Your task to perform on an android device: empty trash in google photos Image 0: 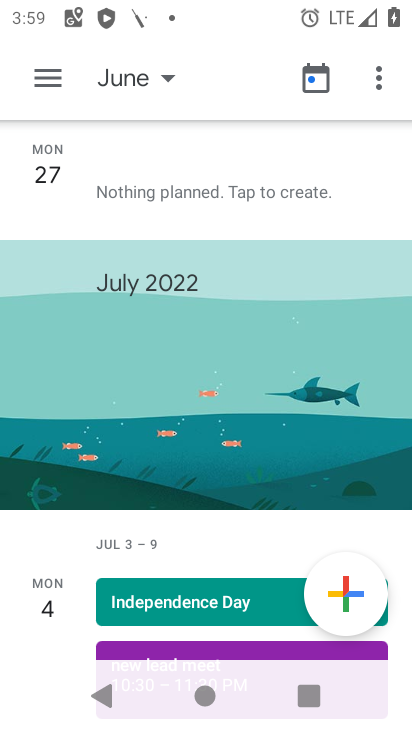
Step 0: press home button
Your task to perform on an android device: empty trash in google photos Image 1: 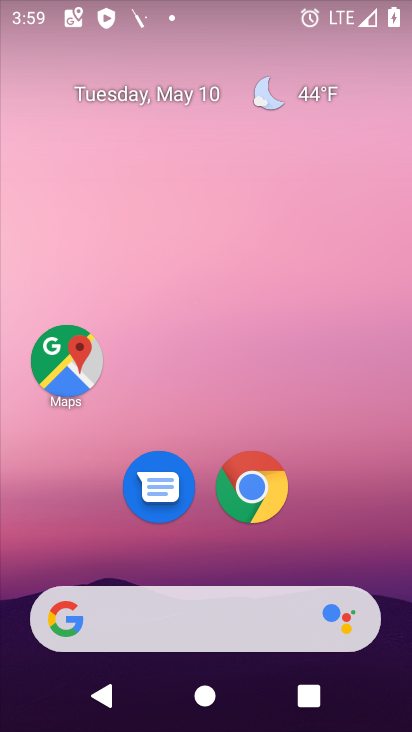
Step 1: drag from (350, 498) to (305, 98)
Your task to perform on an android device: empty trash in google photos Image 2: 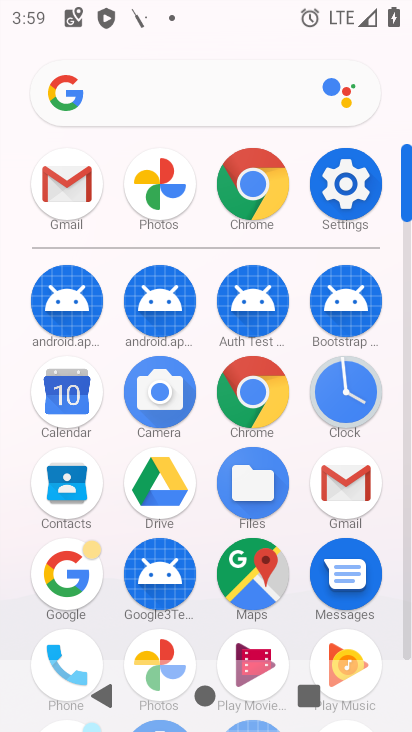
Step 2: click (164, 176)
Your task to perform on an android device: empty trash in google photos Image 3: 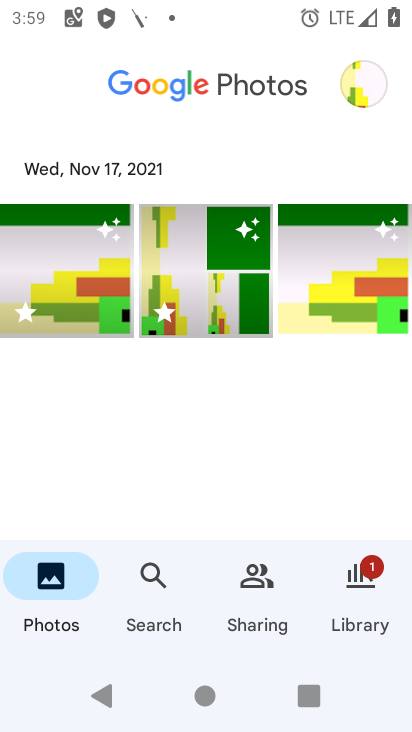
Step 3: click (361, 75)
Your task to perform on an android device: empty trash in google photos Image 4: 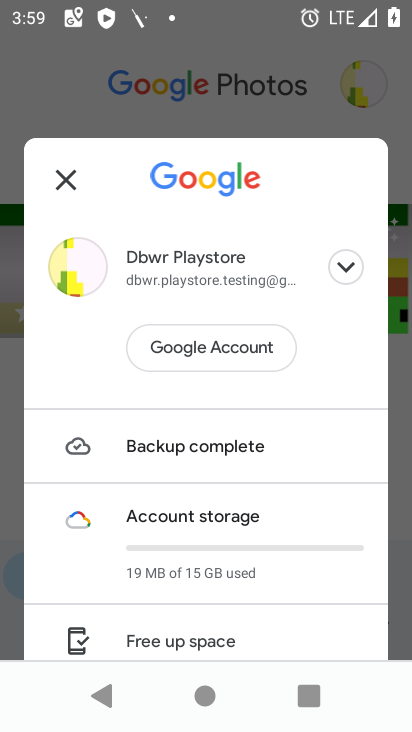
Step 4: drag from (199, 611) to (332, 169)
Your task to perform on an android device: empty trash in google photos Image 5: 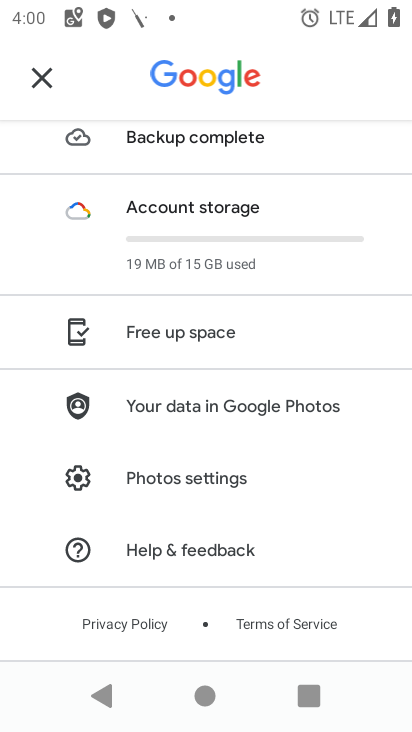
Step 5: drag from (186, 523) to (254, 669)
Your task to perform on an android device: empty trash in google photos Image 6: 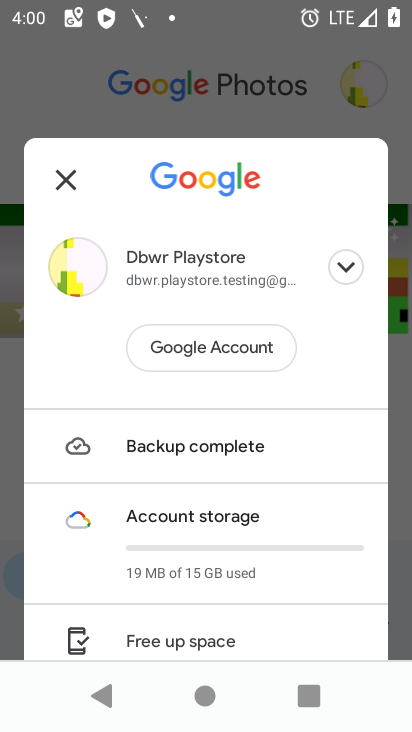
Step 6: click (68, 172)
Your task to perform on an android device: empty trash in google photos Image 7: 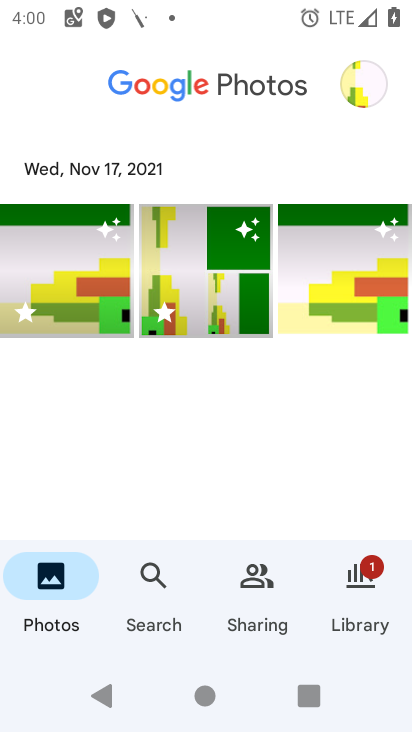
Step 7: click (354, 84)
Your task to perform on an android device: empty trash in google photos Image 8: 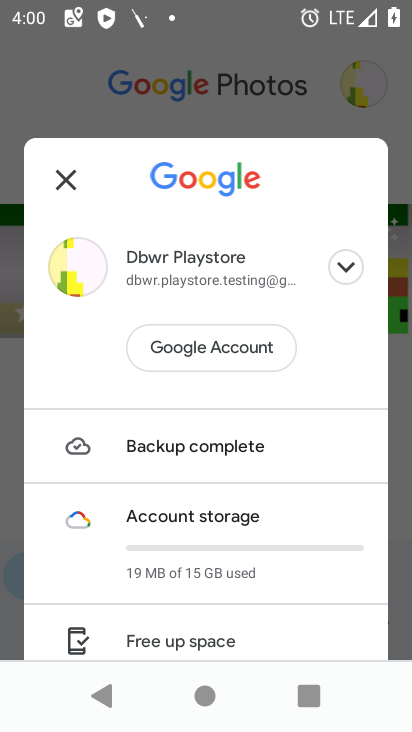
Step 8: drag from (182, 527) to (252, 227)
Your task to perform on an android device: empty trash in google photos Image 9: 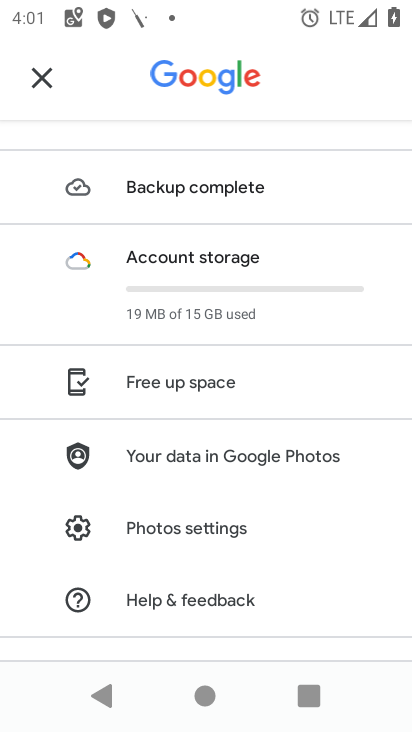
Step 9: click (205, 378)
Your task to perform on an android device: empty trash in google photos Image 10: 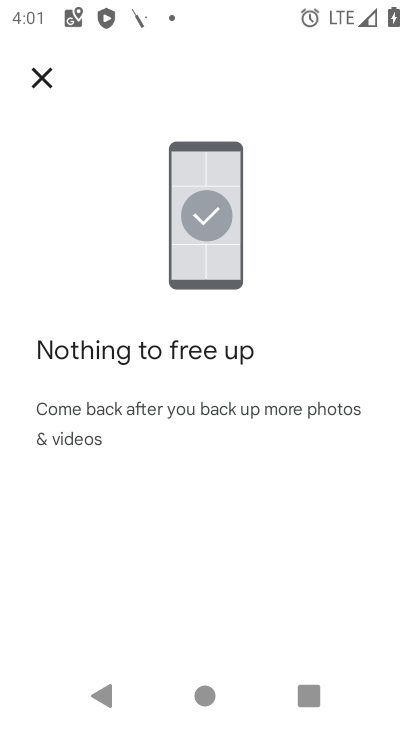
Step 10: task complete